Your task to perform on an android device: change the clock style Image 0: 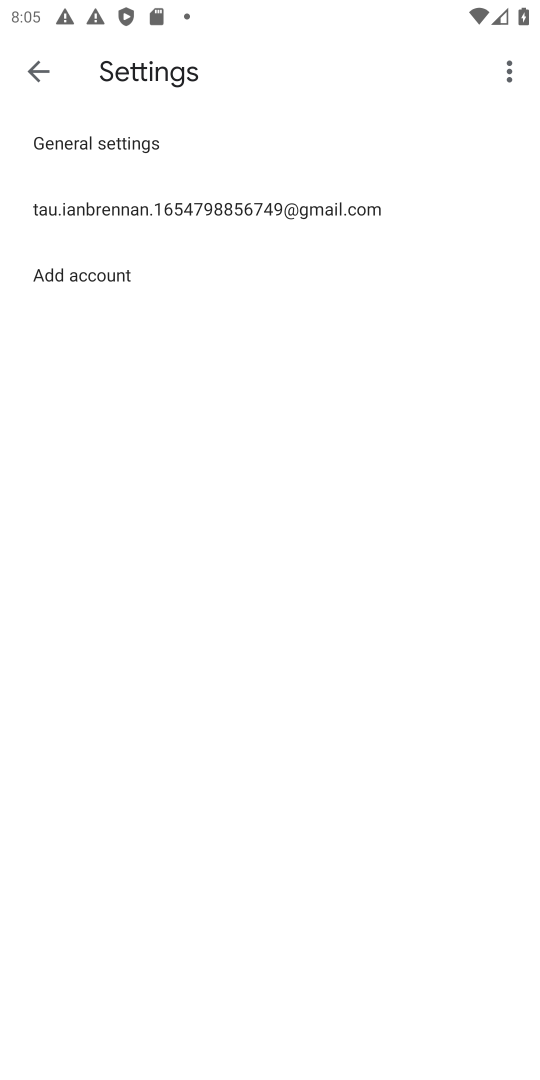
Step 0: press home button
Your task to perform on an android device: change the clock style Image 1: 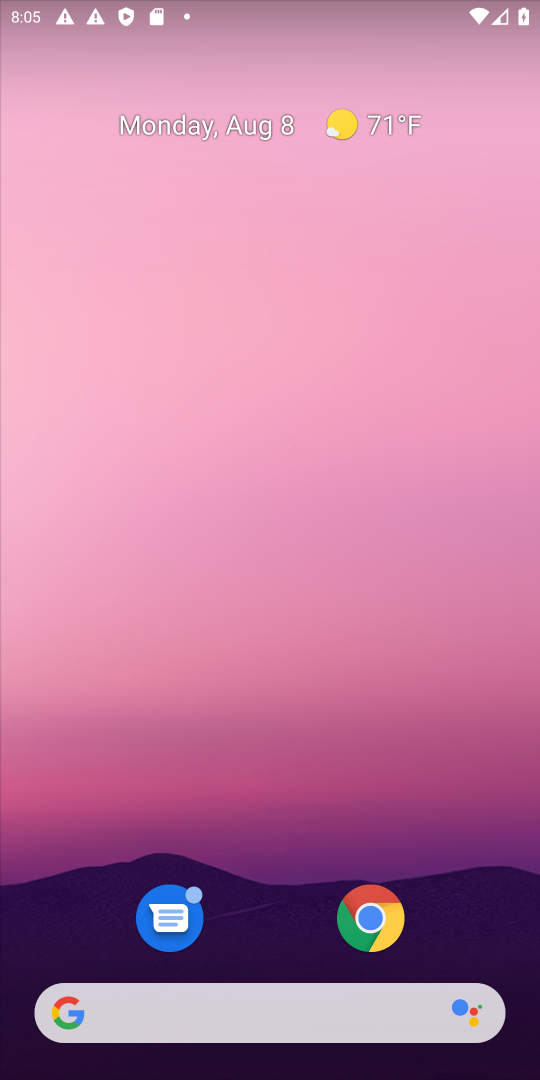
Step 1: drag from (510, 972) to (337, 255)
Your task to perform on an android device: change the clock style Image 2: 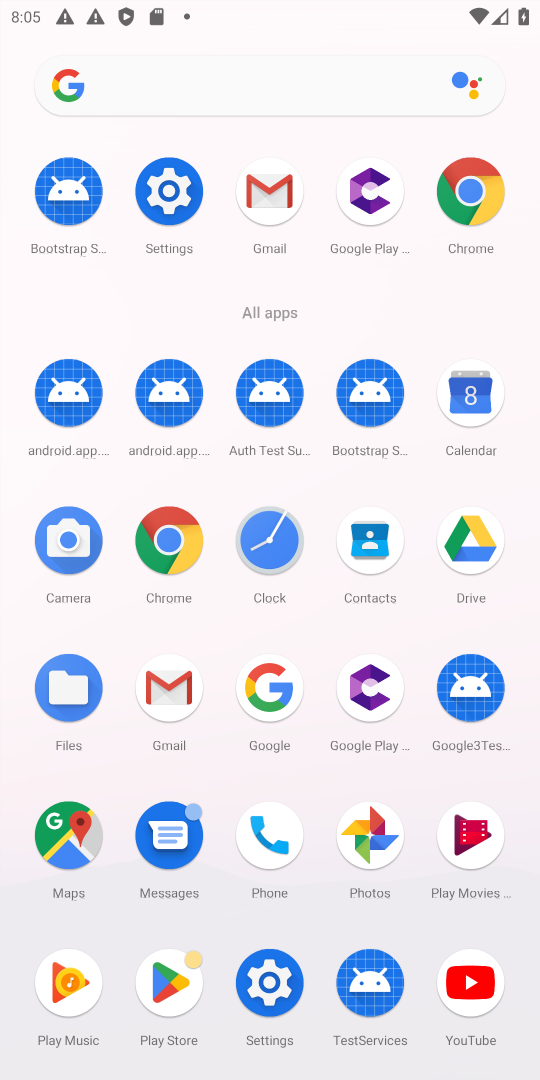
Step 2: click (281, 532)
Your task to perform on an android device: change the clock style Image 3: 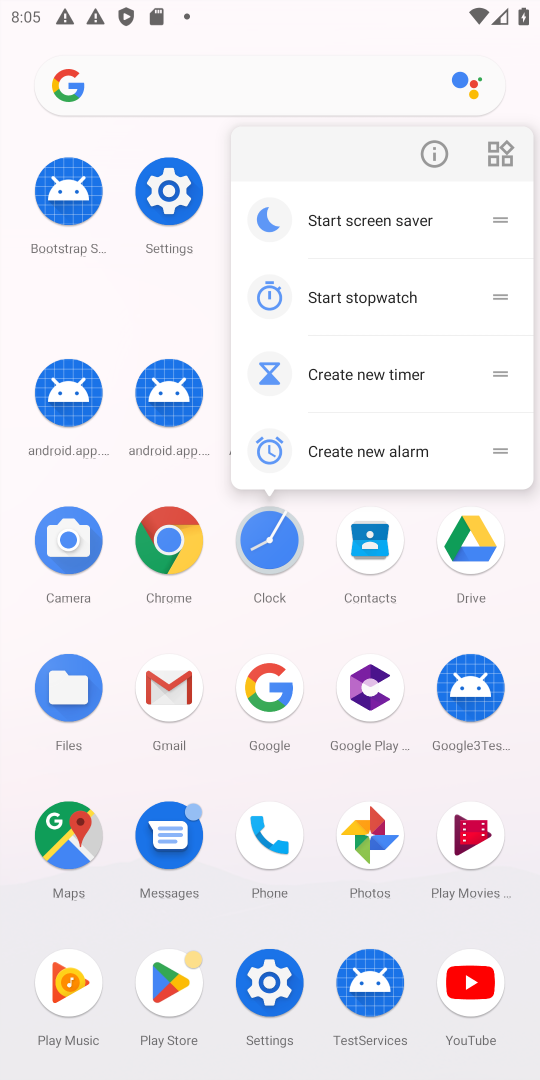
Step 3: click (292, 523)
Your task to perform on an android device: change the clock style Image 4: 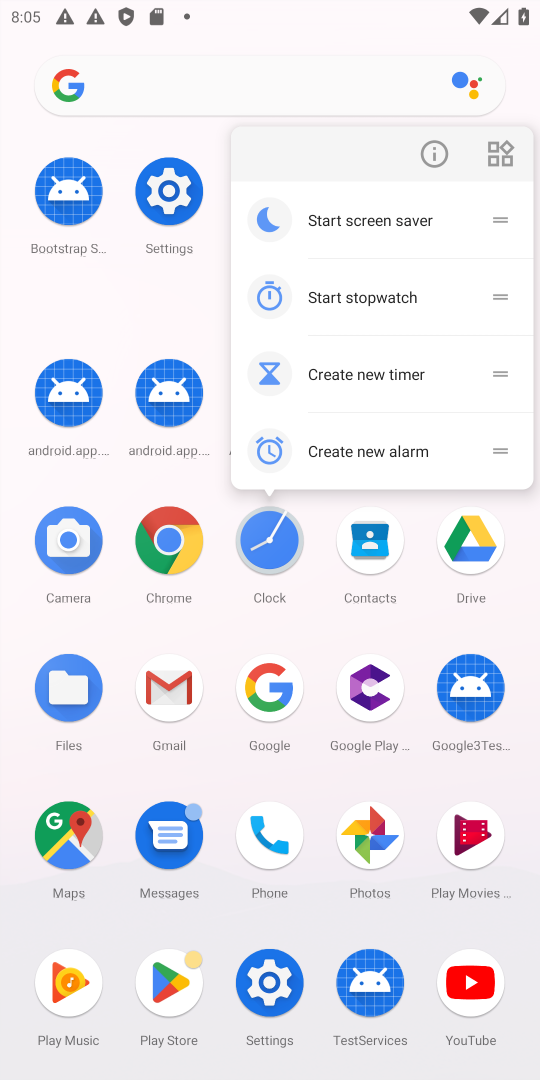
Step 4: click (280, 532)
Your task to perform on an android device: change the clock style Image 5: 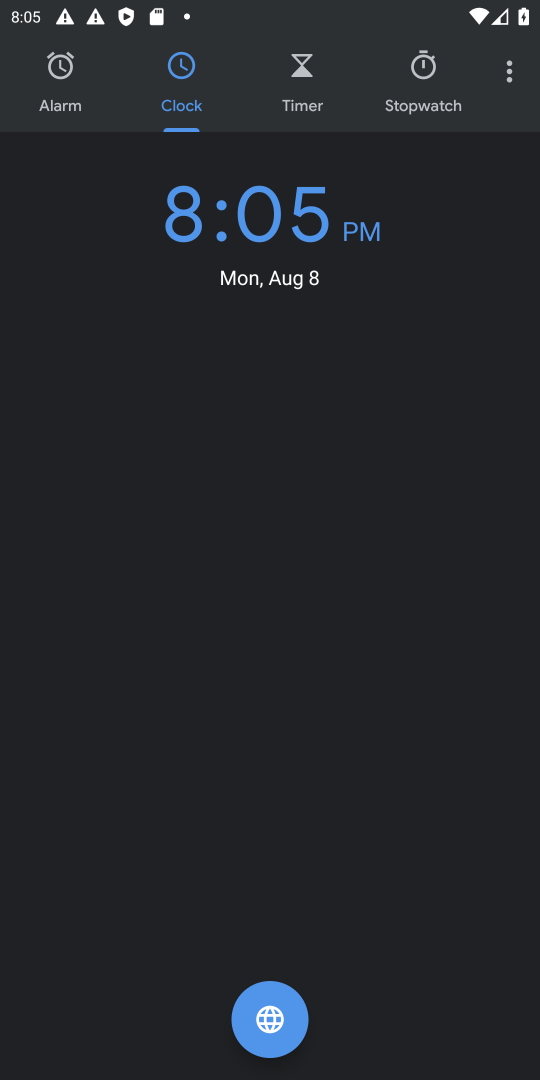
Step 5: click (515, 75)
Your task to perform on an android device: change the clock style Image 6: 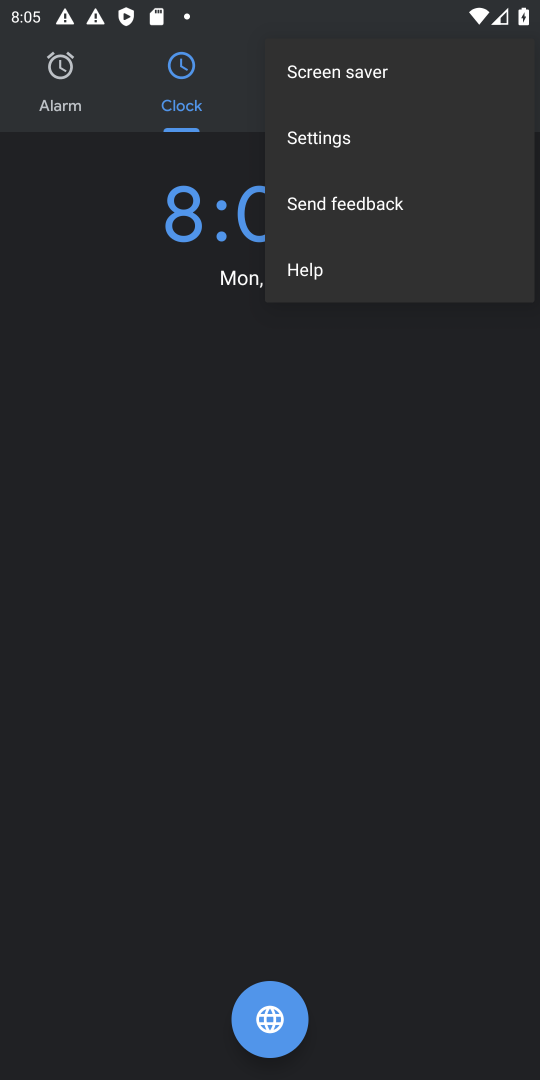
Step 6: click (325, 139)
Your task to perform on an android device: change the clock style Image 7: 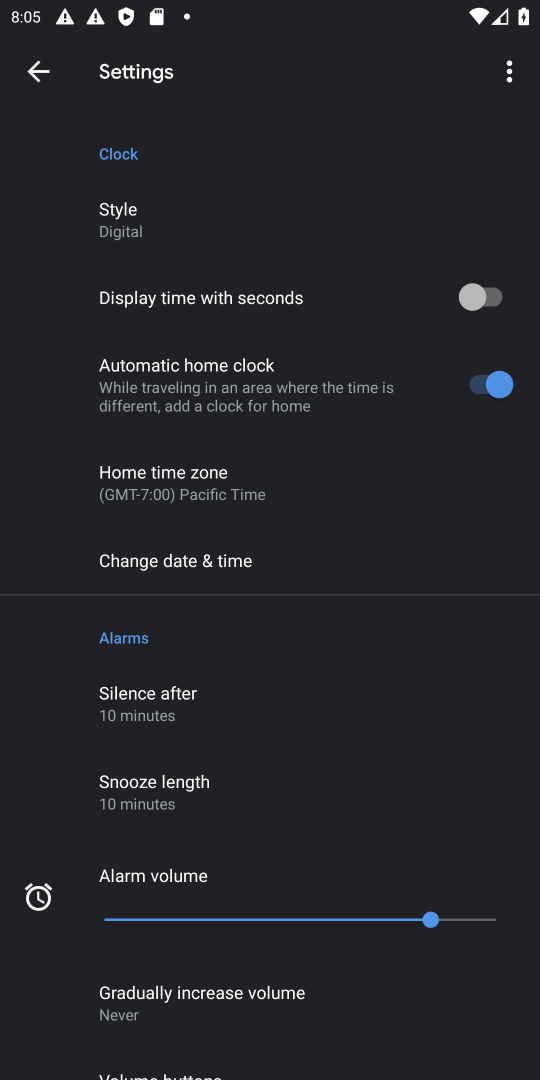
Step 7: click (117, 223)
Your task to perform on an android device: change the clock style Image 8: 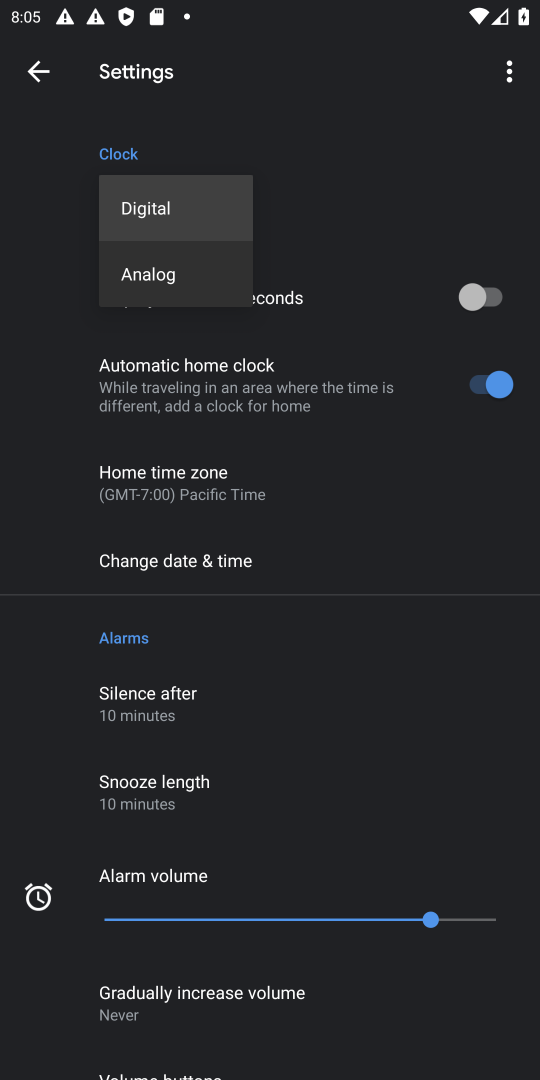
Step 8: click (171, 268)
Your task to perform on an android device: change the clock style Image 9: 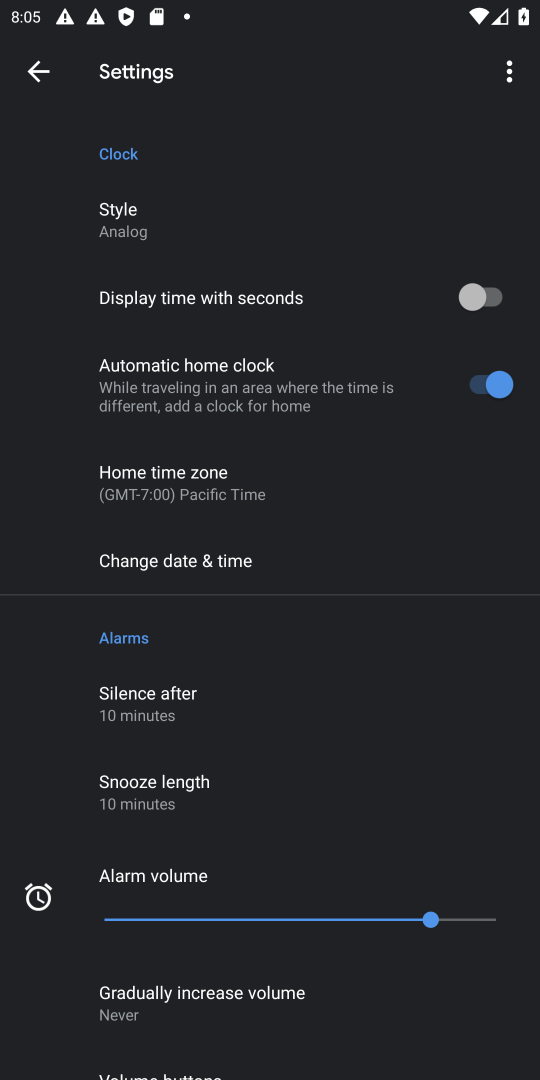
Step 9: task complete